Your task to perform on an android device: turn pop-ups off in chrome Image 0: 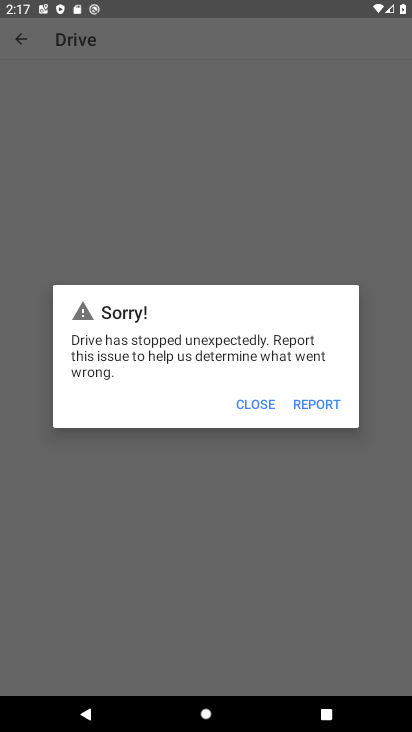
Step 0: press home button
Your task to perform on an android device: turn pop-ups off in chrome Image 1: 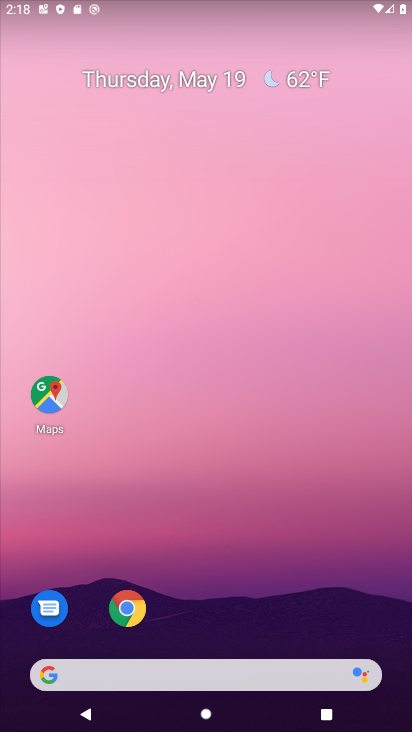
Step 1: click (130, 614)
Your task to perform on an android device: turn pop-ups off in chrome Image 2: 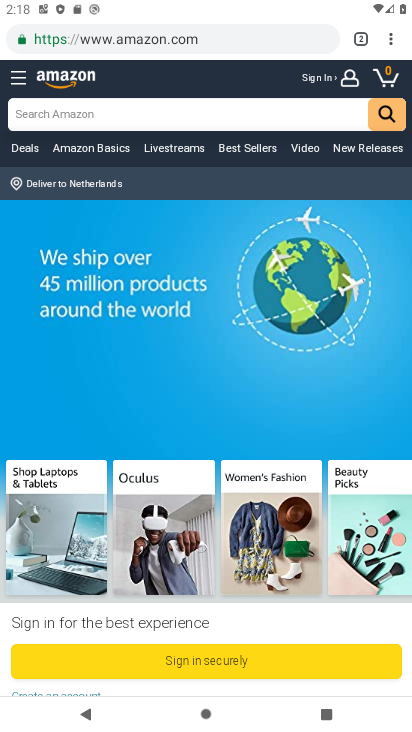
Step 2: click (383, 43)
Your task to perform on an android device: turn pop-ups off in chrome Image 3: 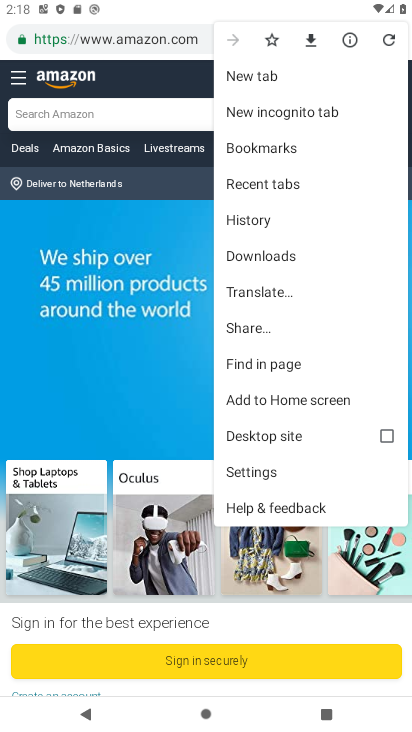
Step 3: click (248, 472)
Your task to perform on an android device: turn pop-ups off in chrome Image 4: 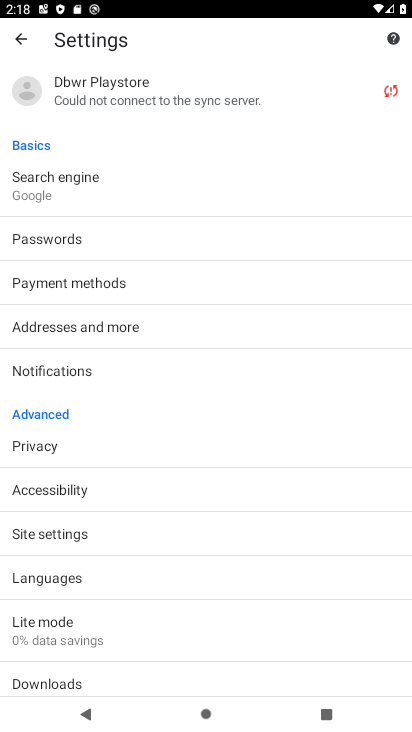
Step 4: click (139, 544)
Your task to perform on an android device: turn pop-ups off in chrome Image 5: 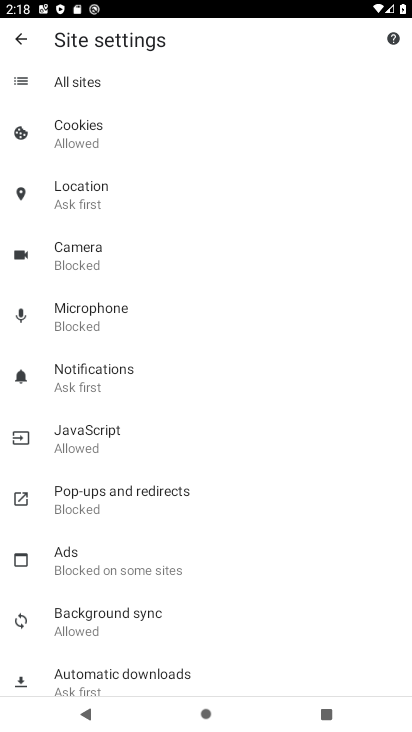
Step 5: click (163, 509)
Your task to perform on an android device: turn pop-ups off in chrome Image 6: 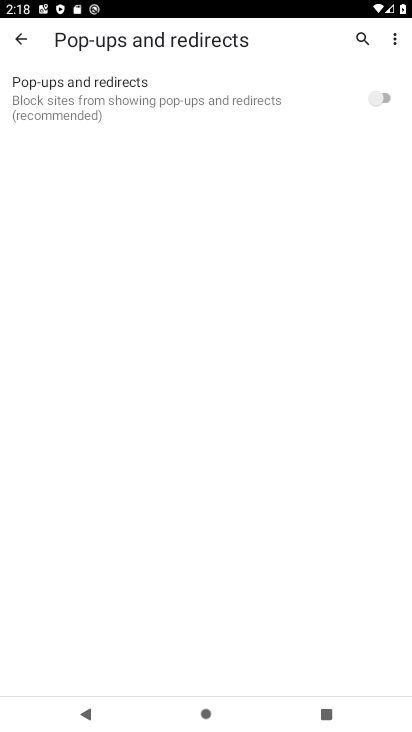
Step 6: click (269, 102)
Your task to perform on an android device: turn pop-ups off in chrome Image 7: 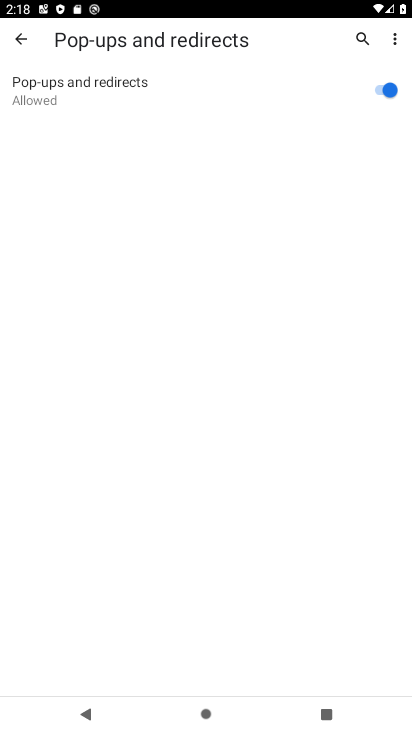
Step 7: task complete